Your task to perform on an android device: toggle sleep mode Image 0: 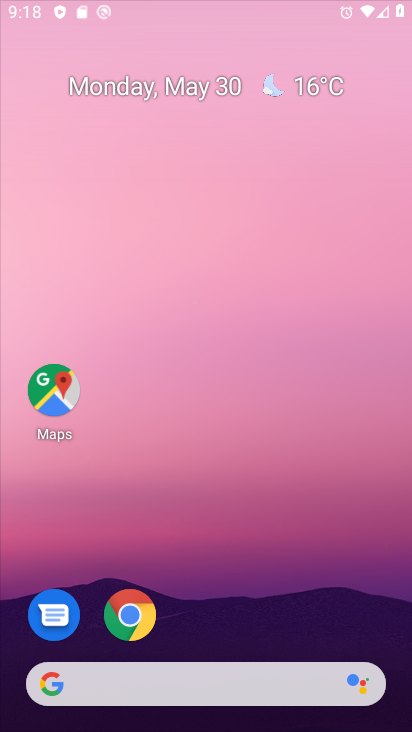
Step 0: drag from (229, 622) to (279, 93)
Your task to perform on an android device: toggle sleep mode Image 1: 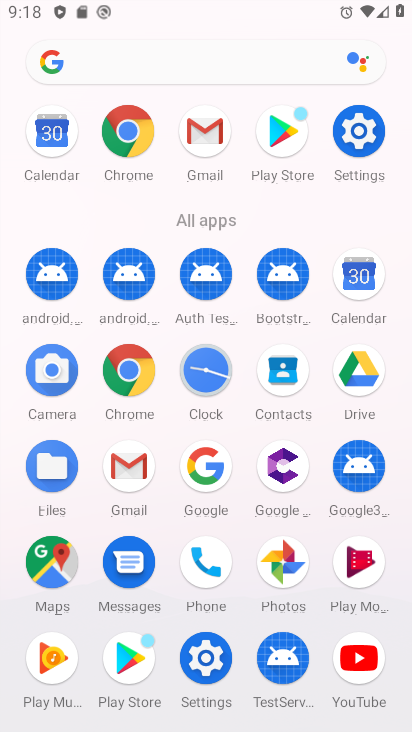
Step 1: click (361, 131)
Your task to perform on an android device: toggle sleep mode Image 2: 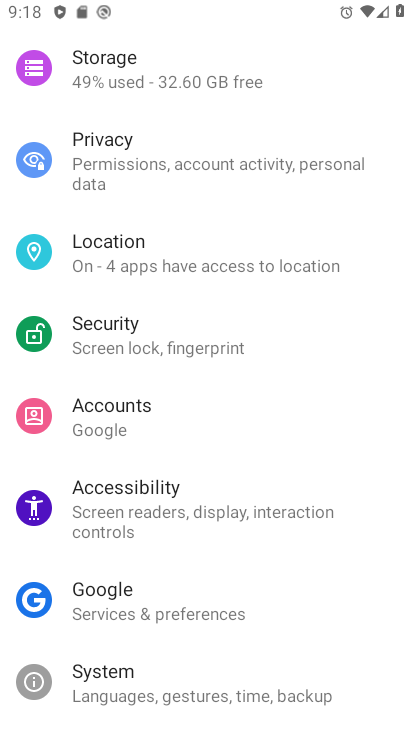
Step 2: drag from (162, 84) to (159, 731)
Your task to perform on an android device: toggle sleep mode Image 3: 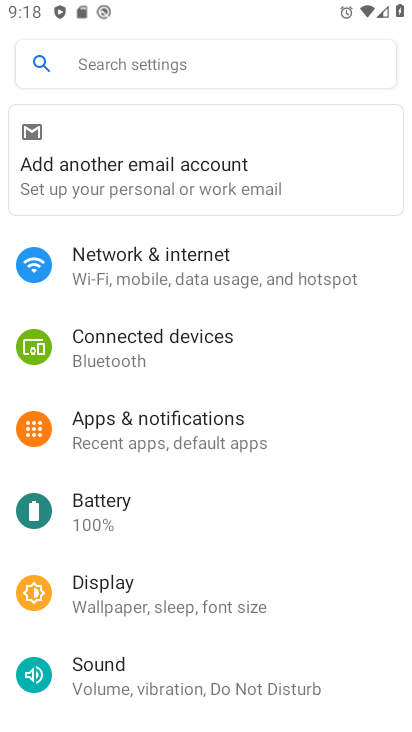
Step 3: click (141, 55)
Your task to perform on an android device: toggle sleep mode Image 4: 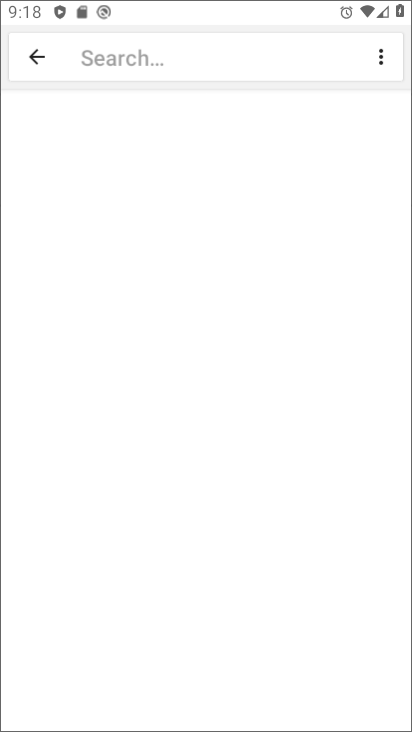
Step 4: click (132, 65)
Your task to perform on an android device: toggle sleep mode Image 5: 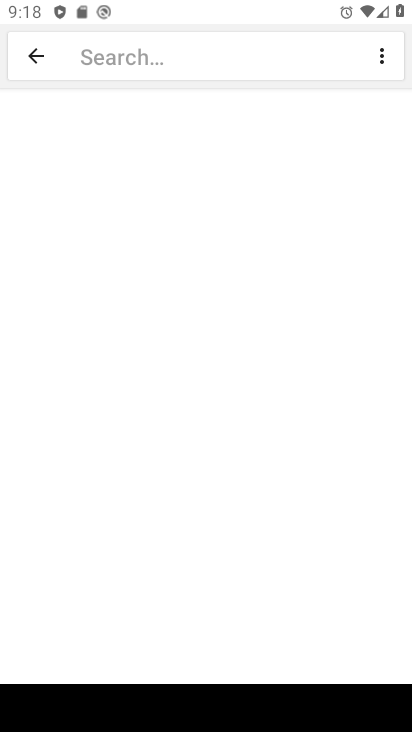
Step 5: type "sleep mood"
Your task to perform on an android device: toggle sleep mode Image 6: 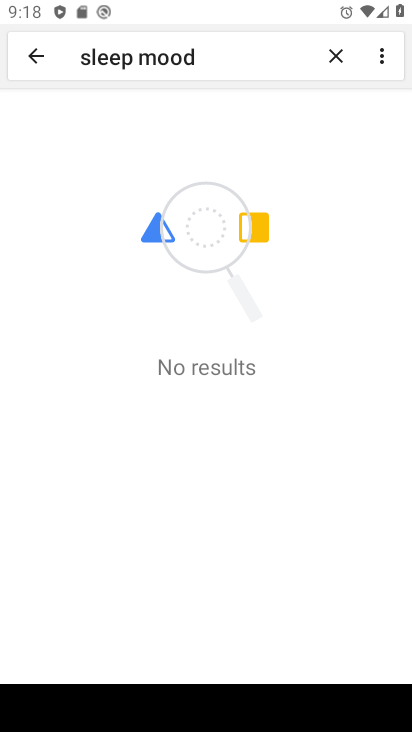
Step 6: task complete